Your task to perform on an android device: change the clock style Image 0: 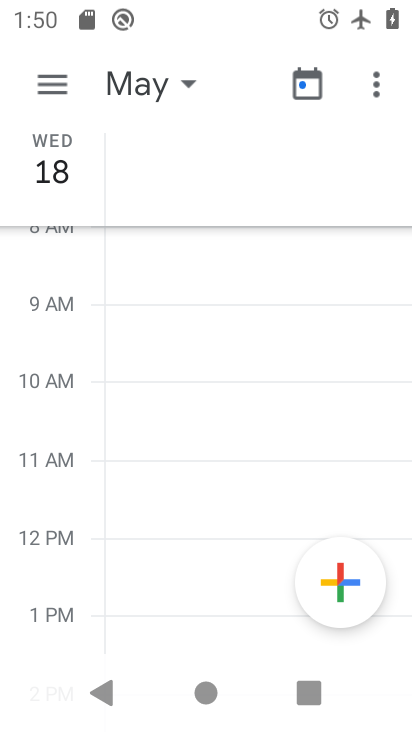
Step 0: press home button
Your task to perform on an android device: change the clock style Image 1: 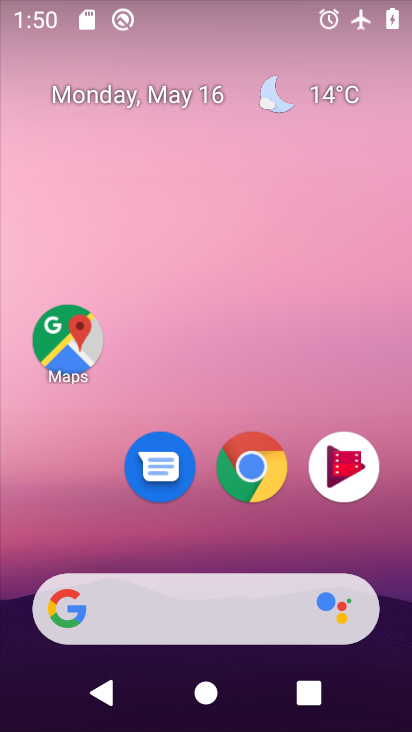
Step 1: drag from (273, 528) to (250, 154)
Your task to perform on an android device: change the clock style Image 2: 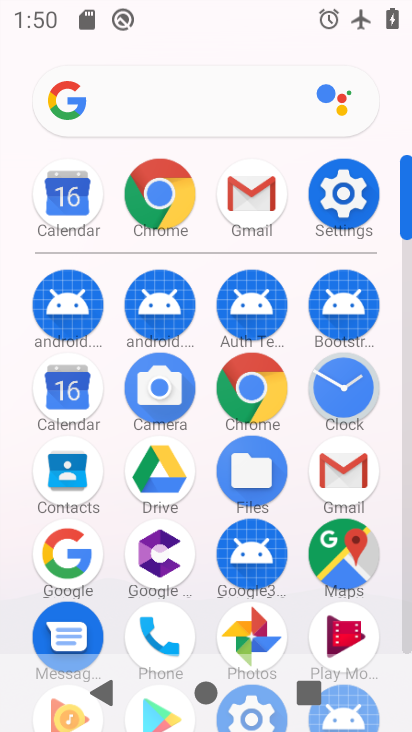
Step 2: click (326, 376)
Your task to perform on an android device: change the clock style Image 3: 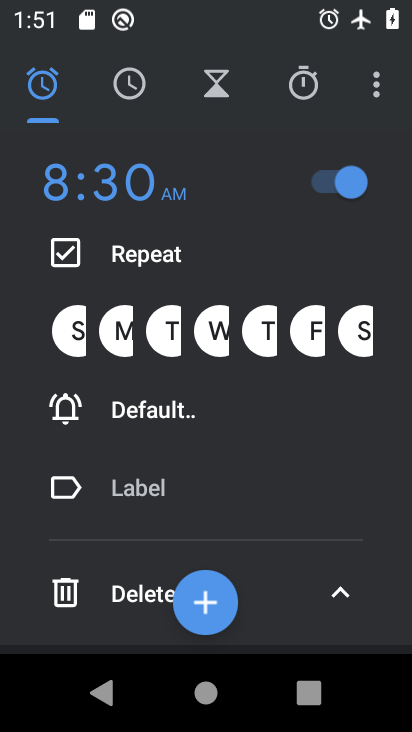
Step 3: click (375, 79)
Your task to perform on an android device: change the clock style Image 4: 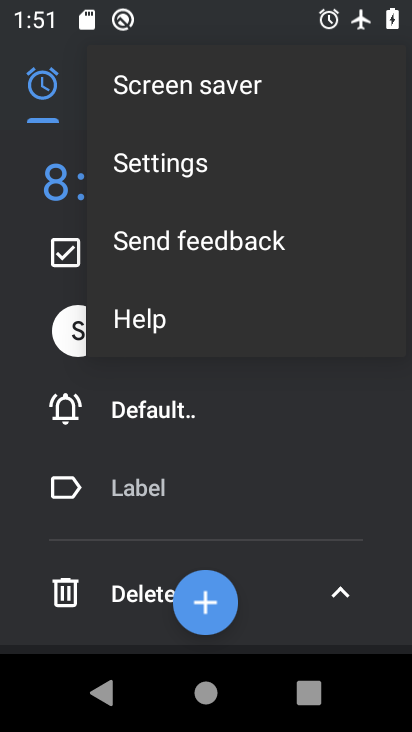
Step 4: click (232, 154)
Your task to perform on an android device: change the clock style Image 5: 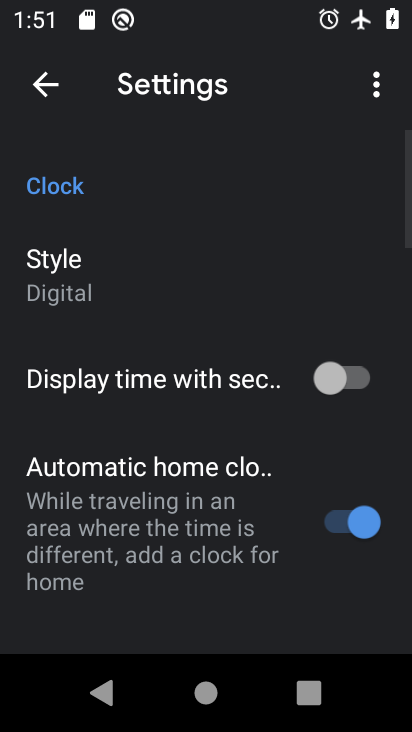
Step 5: drag from (201, 422) to (234, 237)
Your task to perform on an android device: change the clock style Image 6: 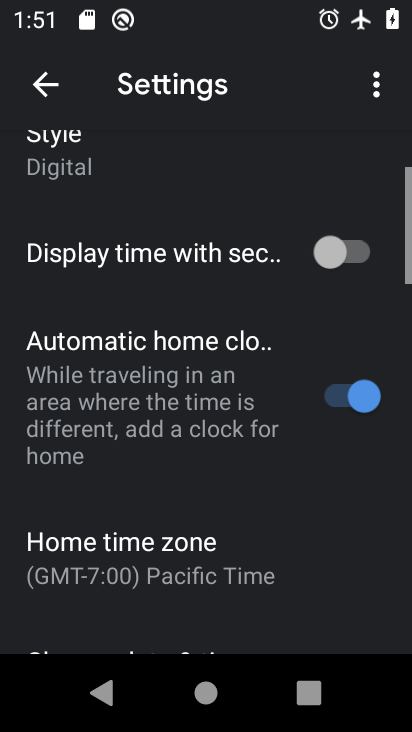
Step 6: click (70, 156)
Your task to perform on an android device: change the clock style Image 7: 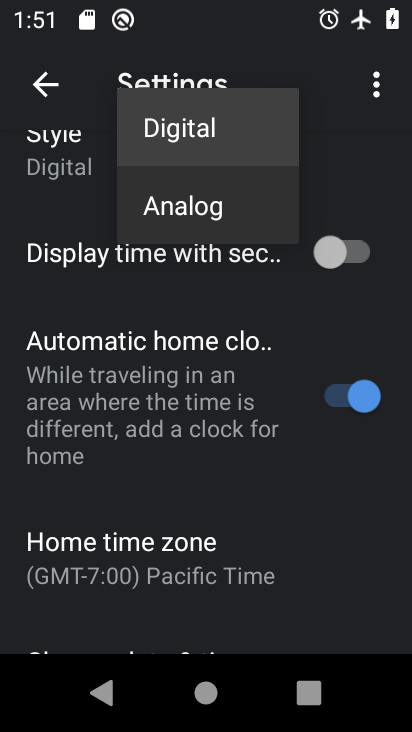
Step 7: click (190, 212)
Your task to perform on an android device: change the clock style Image 8: 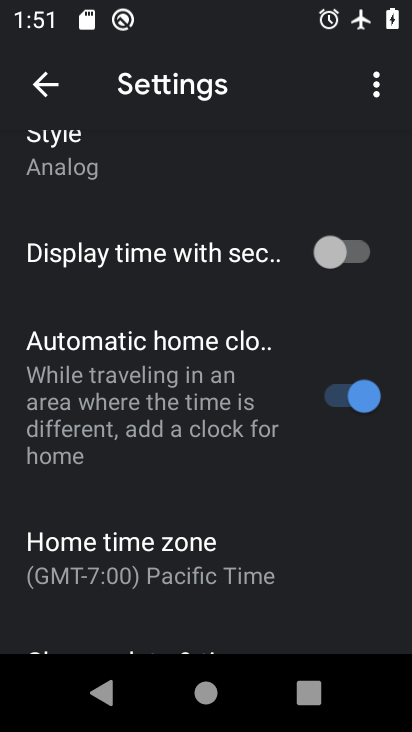
Step 8: task complete